Your task to perform on an android device: see sites visited before in the chrome app Image 0: 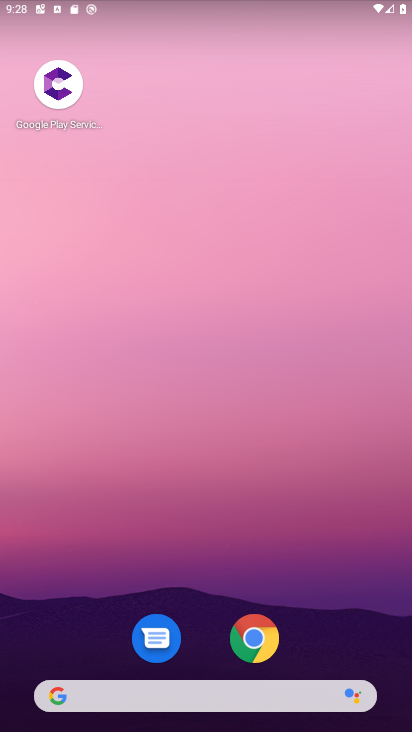
Step 0: drag from (215, 719) to (361, 14)
Your task to perform on an android device: see sites visited before in the chrome app Image 1: 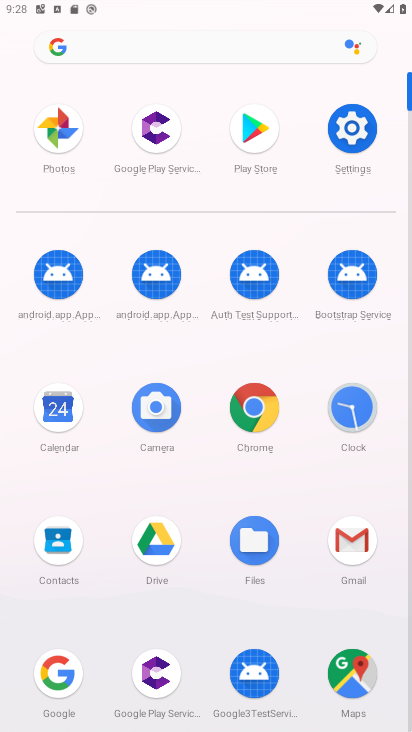
Step 1: click (254, 424)
Your task to perform on an android device: see sites visited before in the chrome app Image 2: 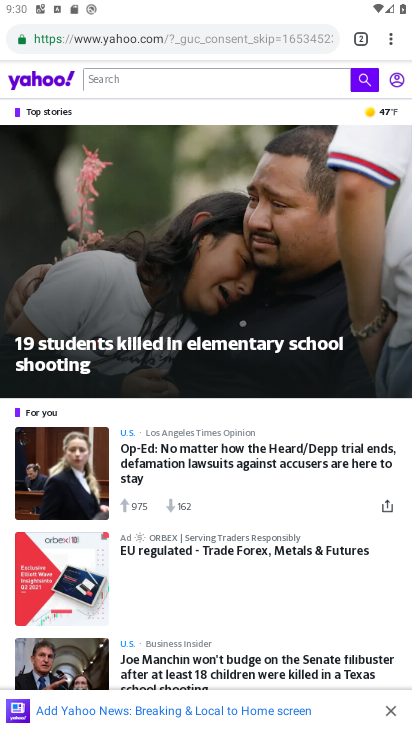
Step 2: click (393, 41)
Your task to perform on an android device: see sites visited before in the chrome app Image 3: 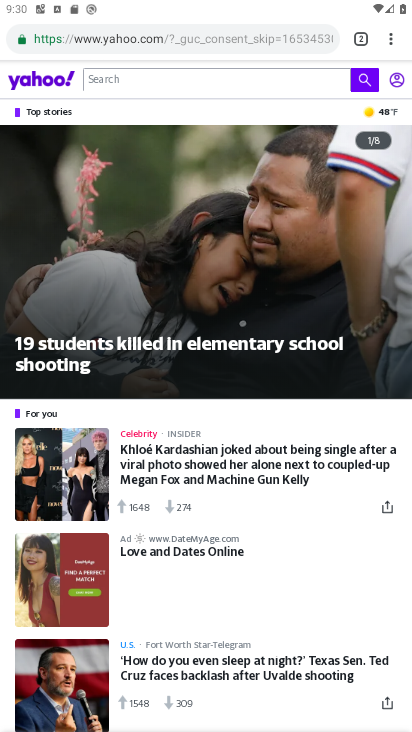
Step 3: click (392, 35)
Your task to perform on an android device: see sites visited before in the chrome app Image 4: 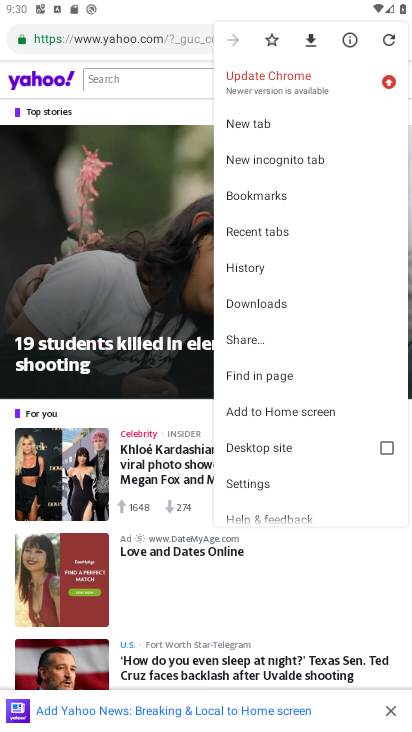
Step 4: click (263, 243)
Your task to perform on an android device: see sites visited before in the chrome app Image 5: 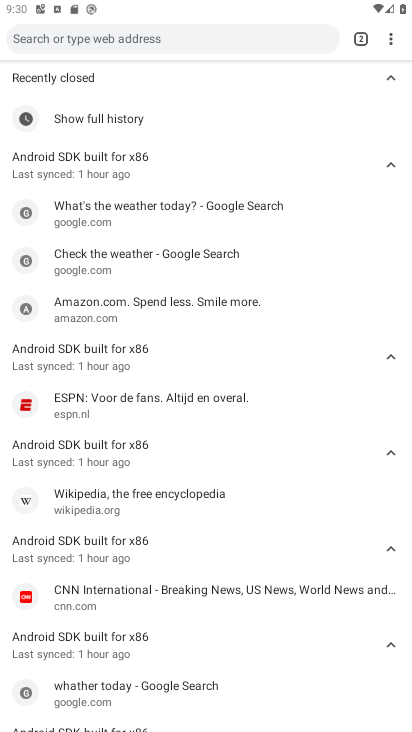
Step 5: task complete